Your task to perform on an android device: Open CNN.com Image 0: 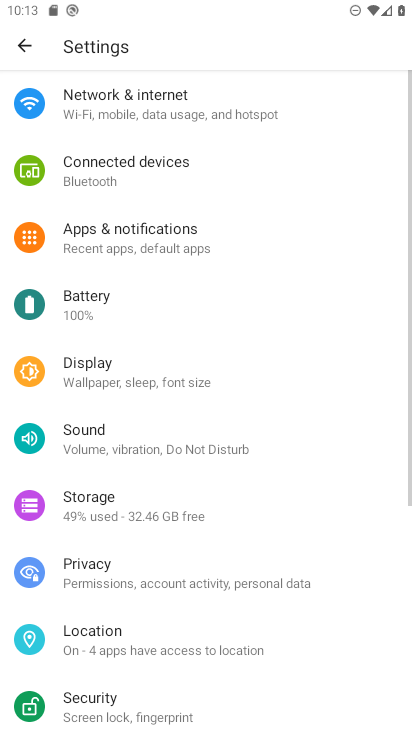
Step 0: press home button
Your task to perform on an android device: Open CNN.com Image 1: 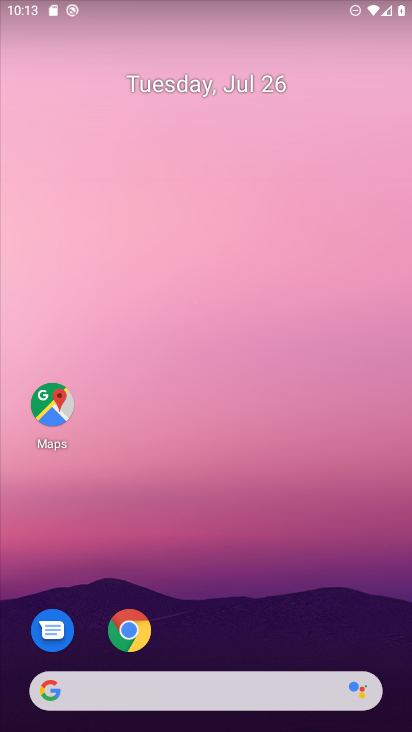
Step 1: click (132, 629)
Your task to perform on an android device: Open CNN.com Image 2: 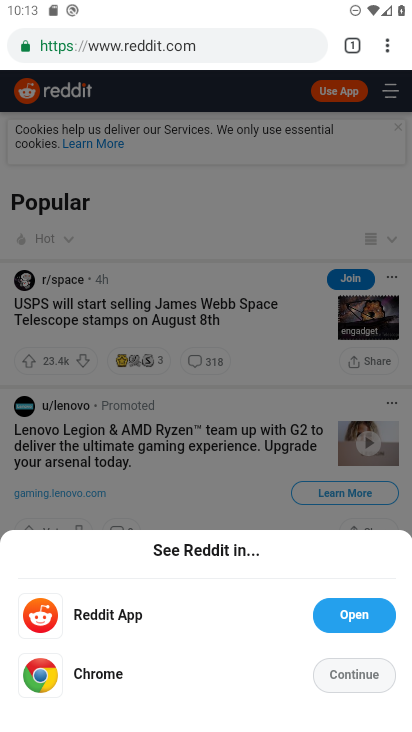
Step 2: click (213, 42)
Your task to perform on an android device: Open CNN.com Image 3: 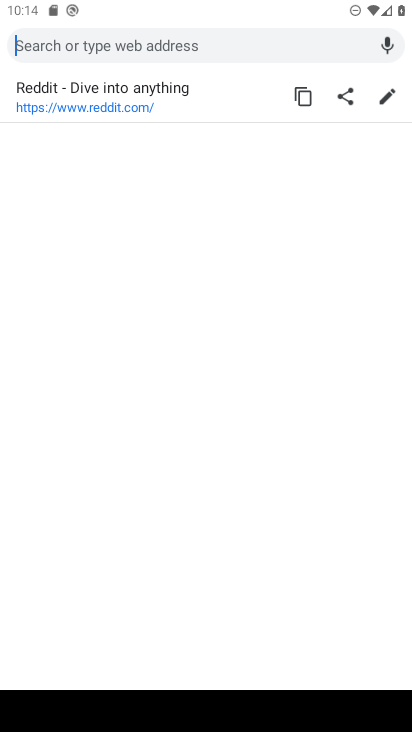
Step 3: type "cnn.com"
Your task to perform on an android device: Open CNN.com Image 4: 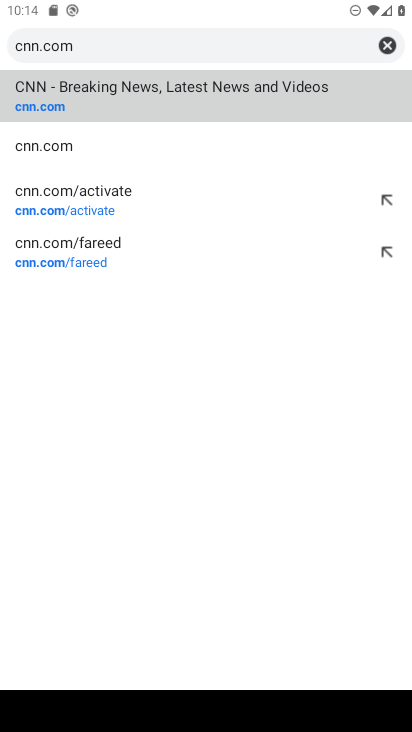
Step 4: click (76, 91)
Your task to perform on an android device: Open CNN.com Image 5: 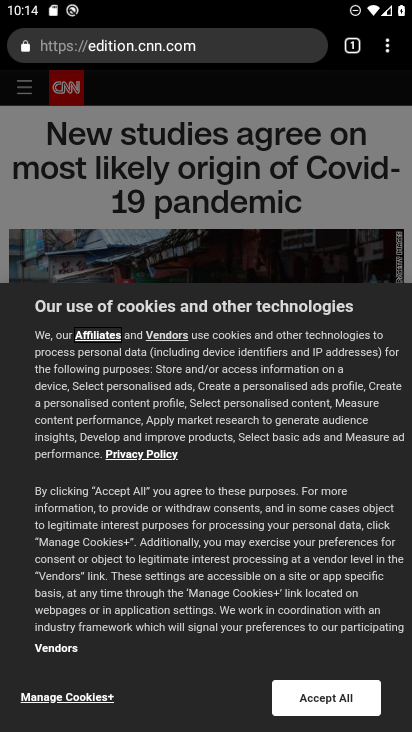
Step 5: click (323, 697)
Your task to perform on an android device: Open CNN.com Image 6: 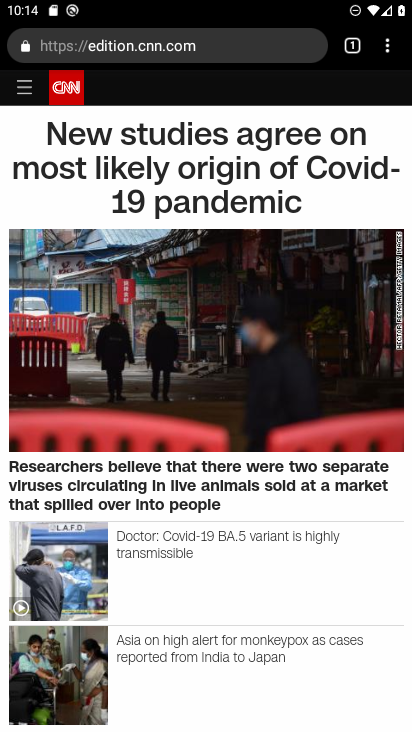
Step 6: task complete